Your task to perform on an android device: Turn on the flashlight Image 0: 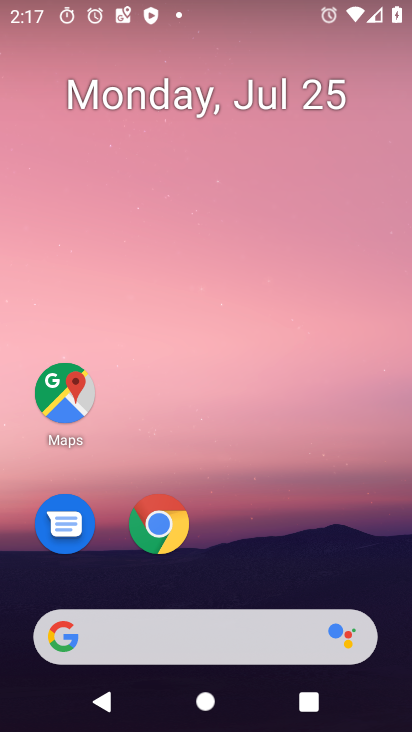
Step 0: press home button
Your task to perform on an android device: Turn on the flashlight Image 1: 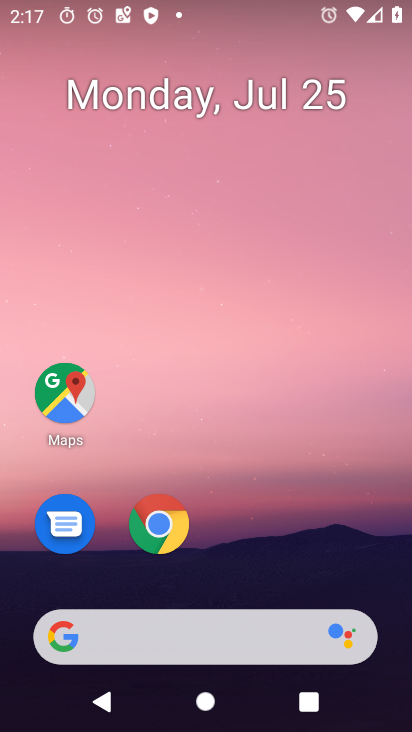
Step 1: task complete